Your task to perform on an android device: Search for jbl flip 4 on walmart.com, select the first entry, and add it to the cart. Image 0: 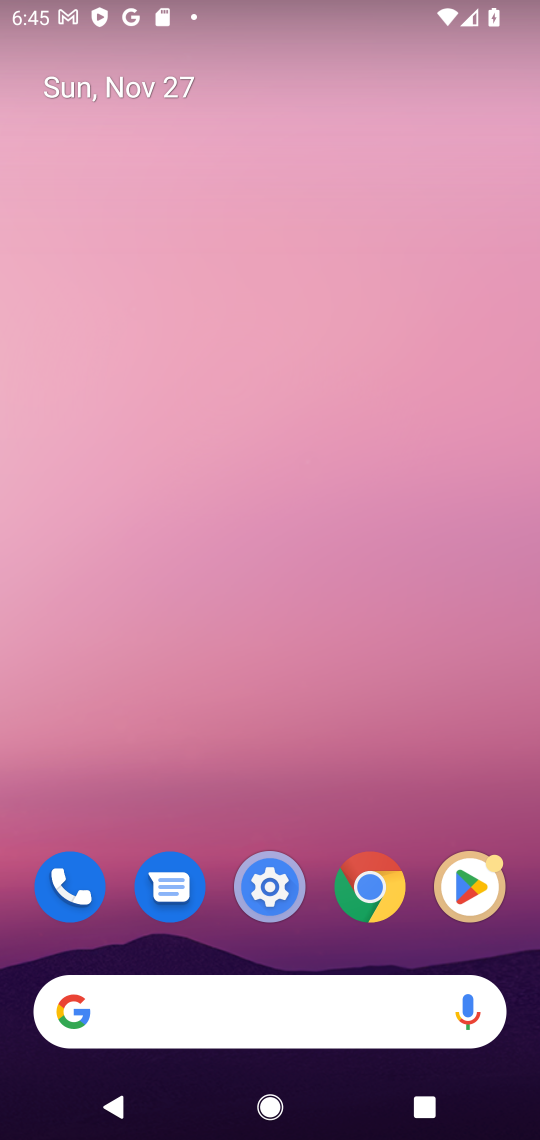
Step 0: click (233, 1026)
Your task to perform on an android device: Search for jbl flip 4 on walmart.com, select the first entry, and add it to the cart. Image 1: 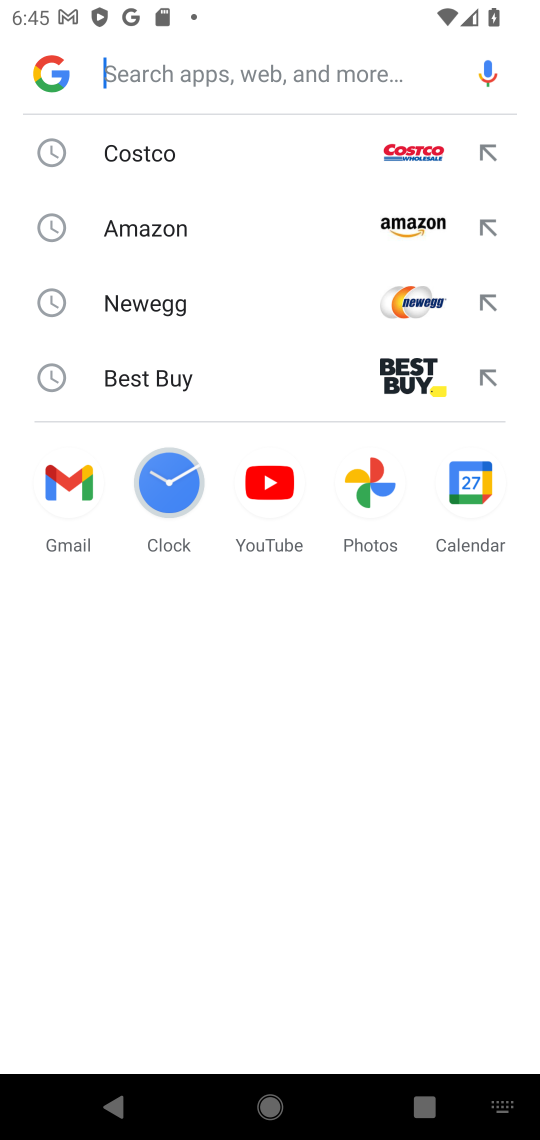
Step 1: type "walmart"
Your task to perform on an android device: Search for jbl flip 4 on walmart.com, select the first entry, and add it to the cart. Image 2: 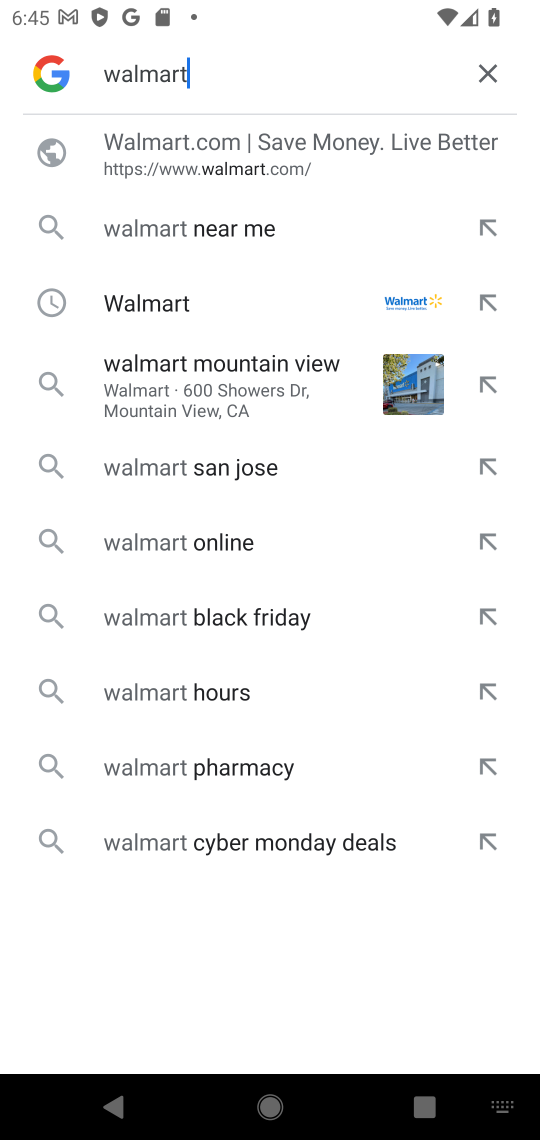
Step 2: click (145, 178)
Your task to perform on an android device: Search for jbl flip 4 on walmart.com, select the first entry, and add it to the cart. Image 3: 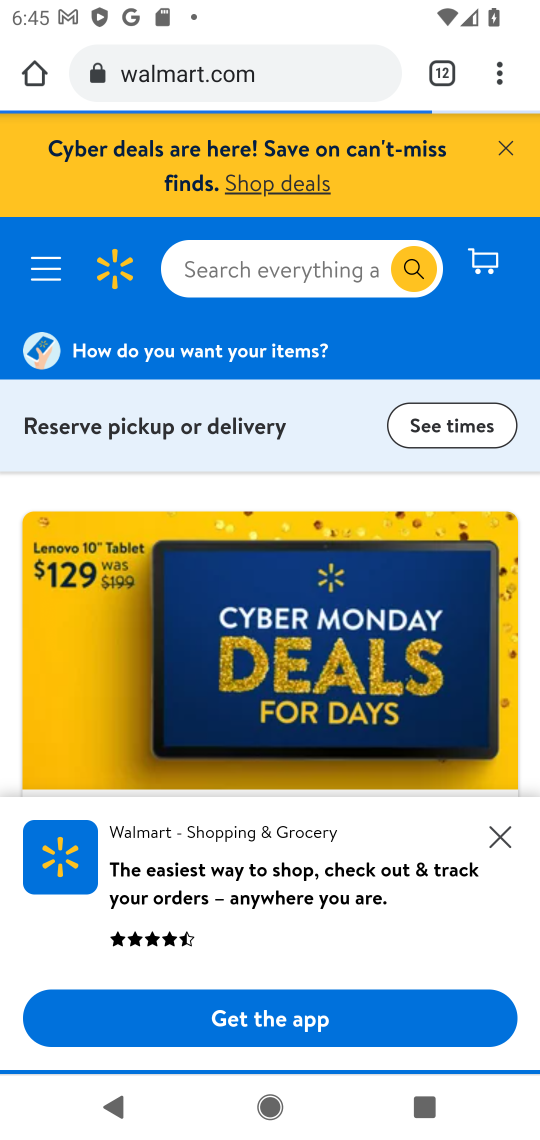
Step 3: click (284, 268)
Your task to perform on an android device: Search for jbl flip 4 on walmart.com, select the first entry, and add it to the cart. Image 4: 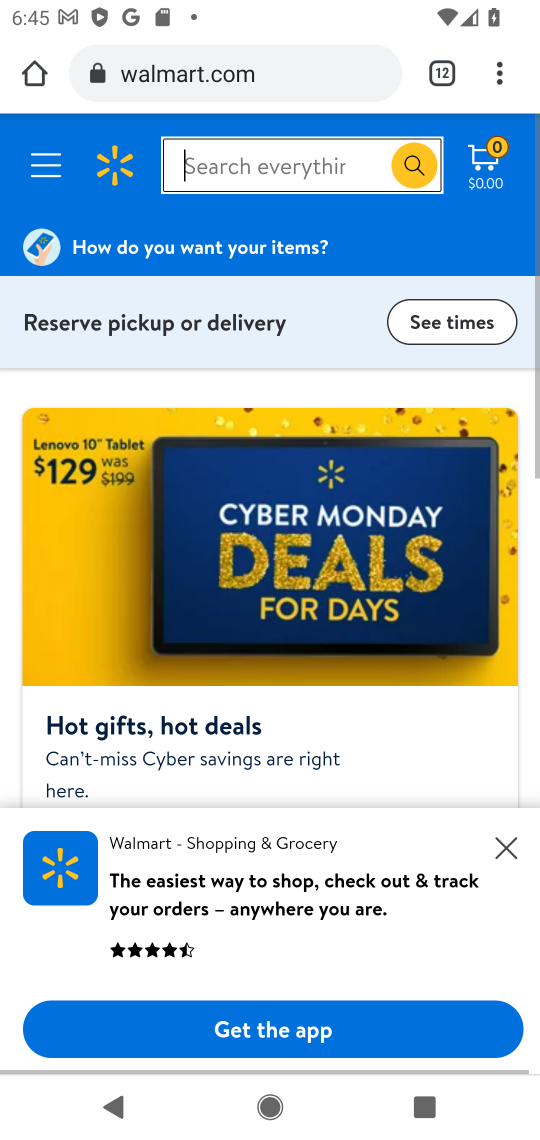
Step 4: click (284, 268)
Your task to perform on an android device: Search for jbl flip 4 on walmart.com, select the first entry, and add it to the cart. Image 5: 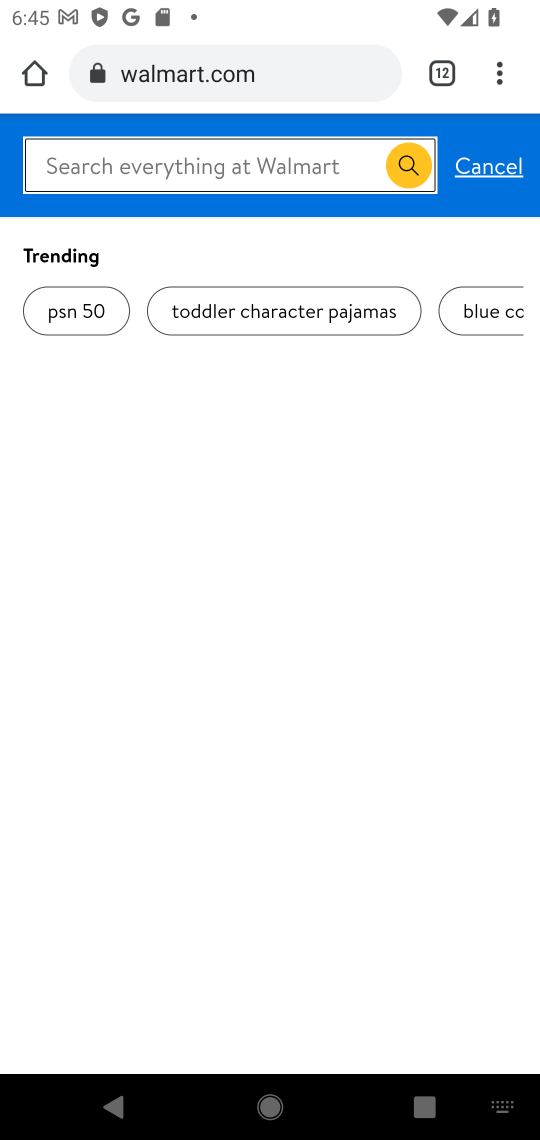
Step 5: type "jbl flip 4"
Your task to perform on an android device: Search for jbl flip 4 on walmart.com, select the first entry, and add it to the cart. Image 6: 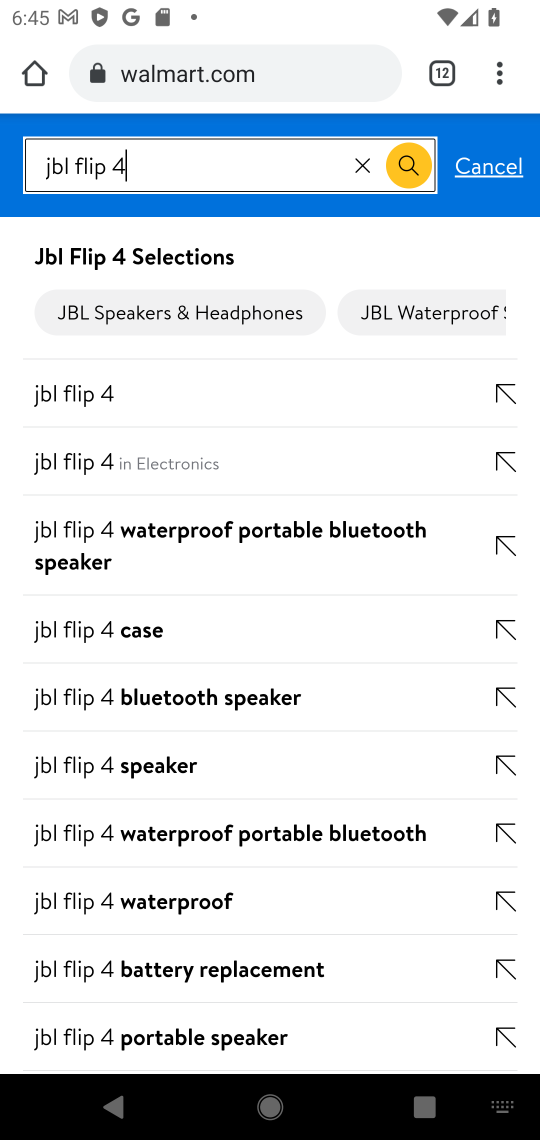
Step 6: click (109, 267)
Your task to perform on an android device: Search for jbl flip 4 on walmart.com, select the first entry, and add it to the cart. Image 7: 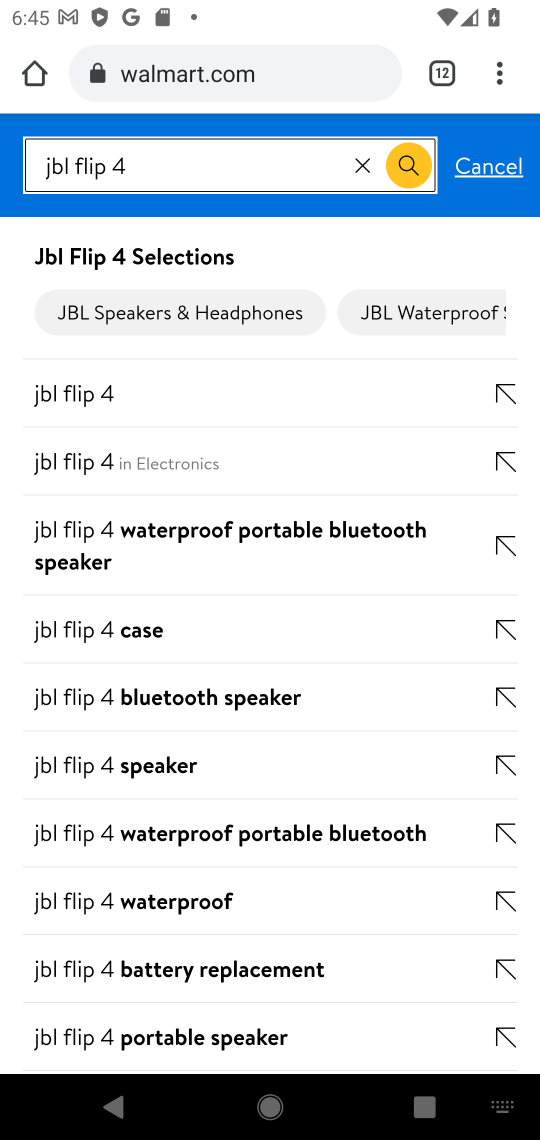
Step 7: click (91, 406)
Your task to perform on an android device: Search for jbl flip 4 on walmart.com, select the first entry, and add it to the cart. Image 8: 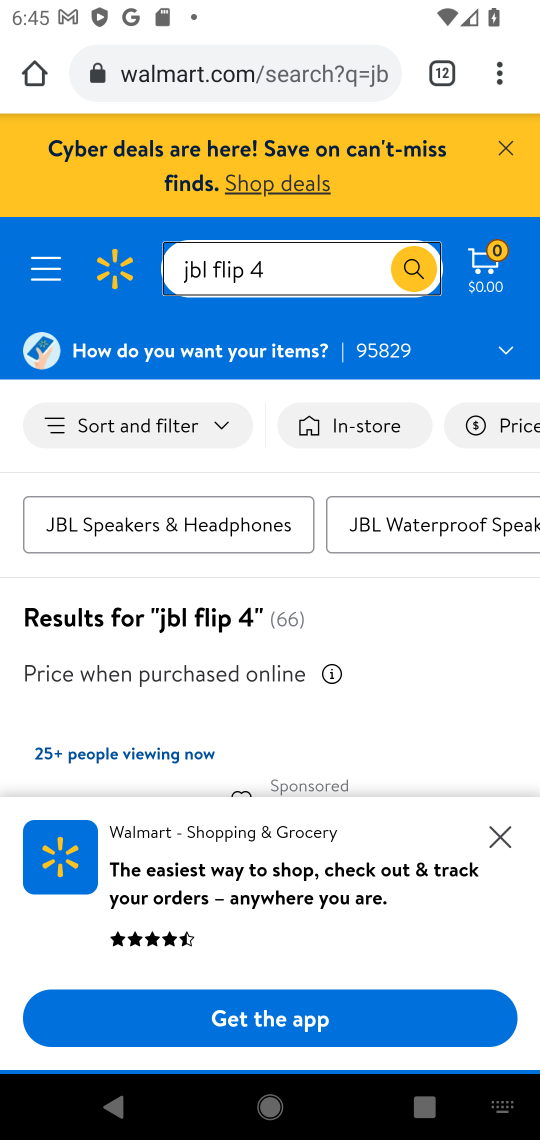
Step 8: click (503, 829)
Your task to perform on an android device: Search for jbl flip 4 on walmart.com, select the first entry, and add it to the cart. Image 9: 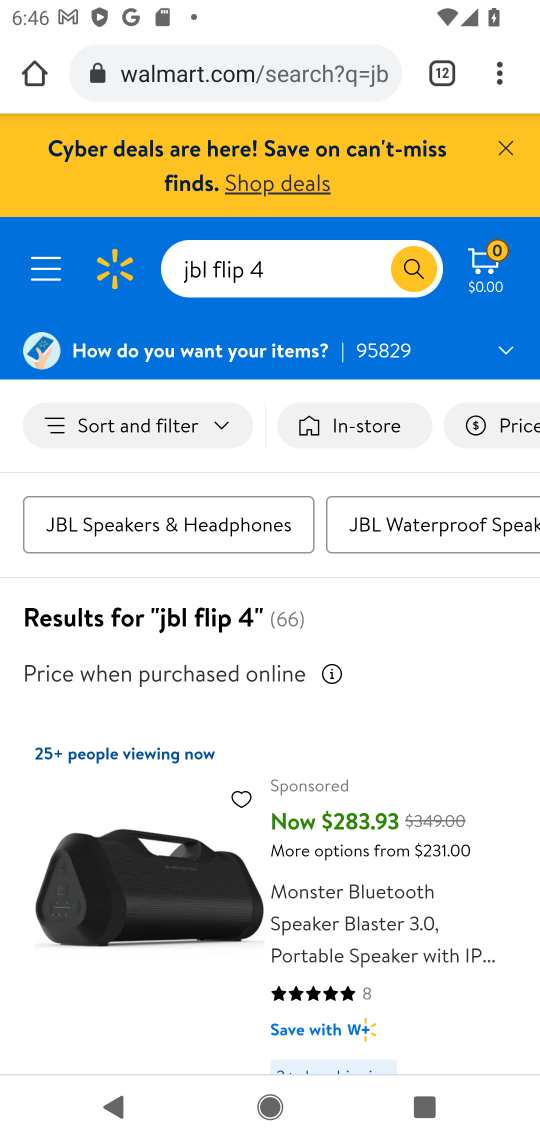
Step 9: click (408, 897)
Your task to perform on an android device: Search for jbl flip 4 on walmart.com, select the first entry, and add it to the cart. Image 10: 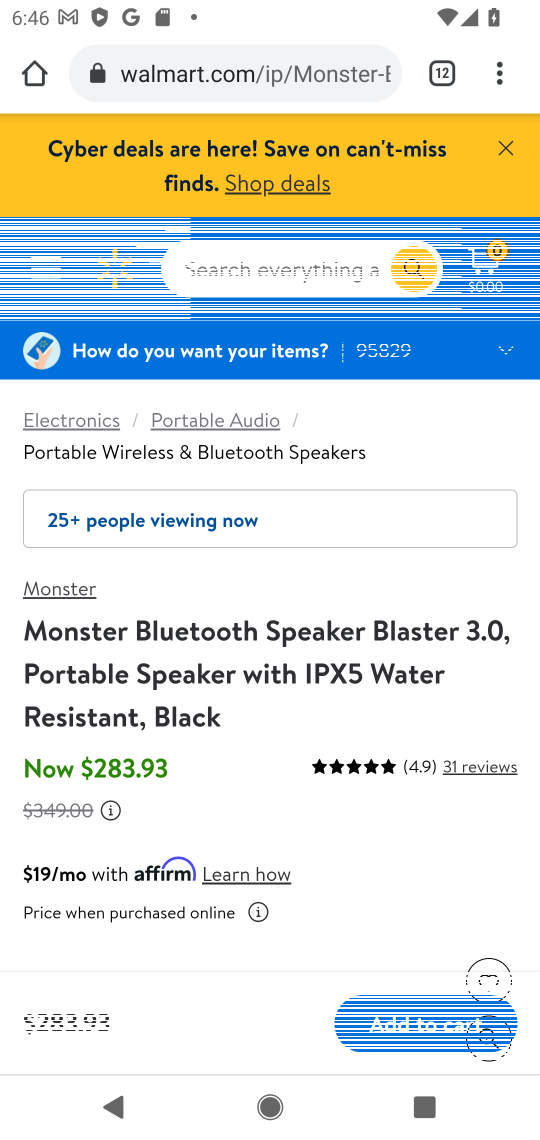
Step 10: click (392, 1030)
Your task to perform on an android device: Search for jbl flip 4 on walmart.com, select the first entry, and add it to the cart. Image 11: 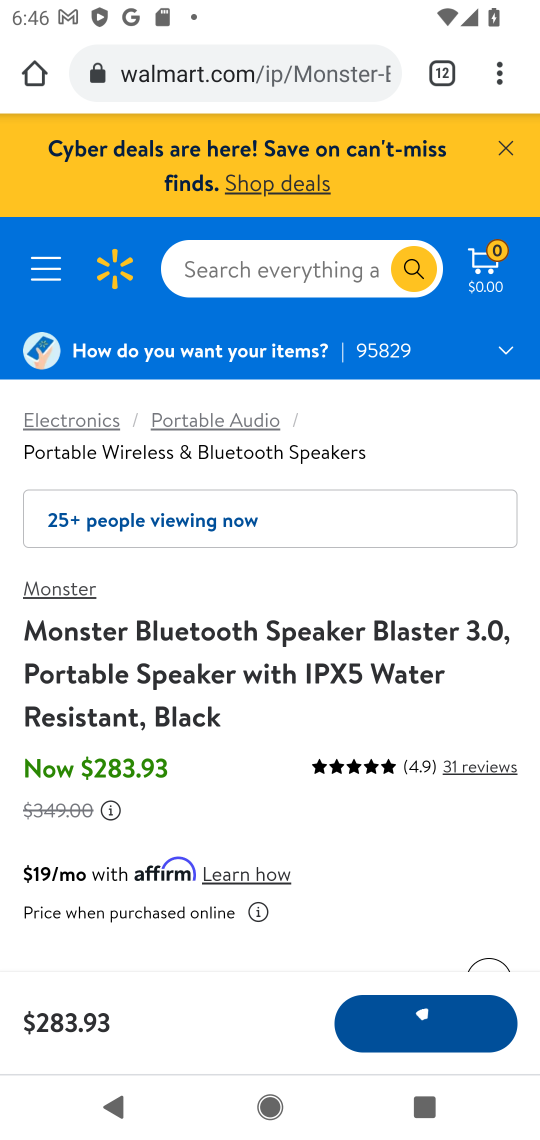
Step 11: task complete